Your task to perform on an android device: Go to notification settings Image 0: 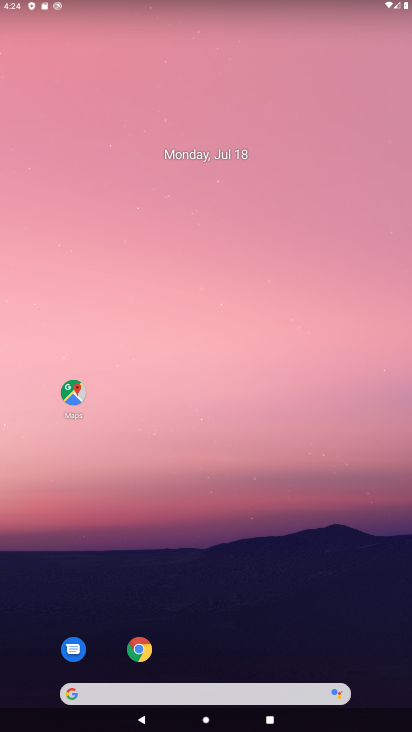
Step 0: drag from (176, 622) to (229, 273)
Your task to perform on an android device: Go to notification settings Image 1: 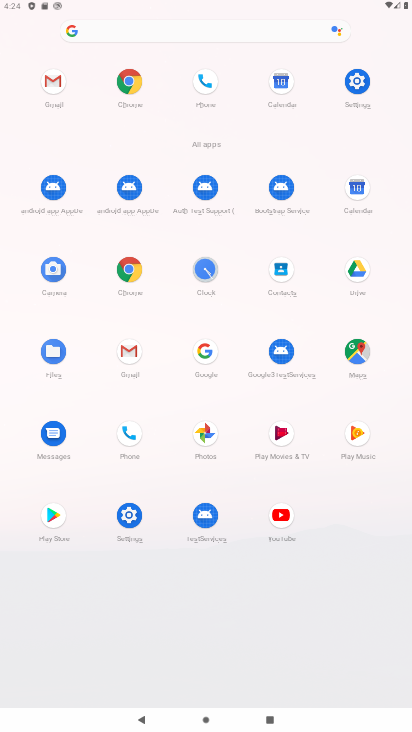
Step 1: click (139, 528)
Your task to perform on an android device: Go to notification settings Image 2: 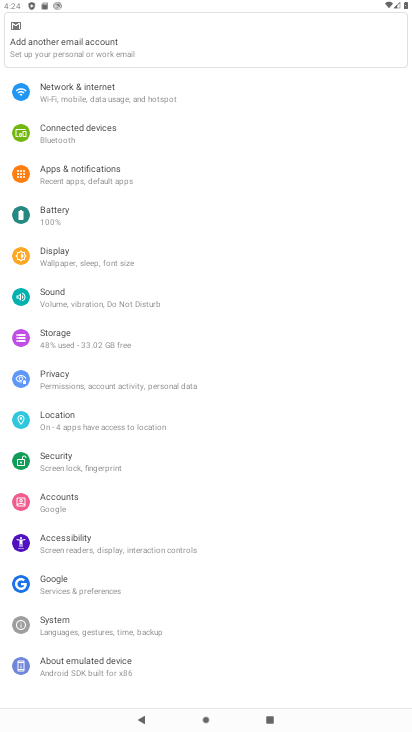
Step 2: click (111, 98)
Your task to perform on an android device: Go to notification settings Image 3: 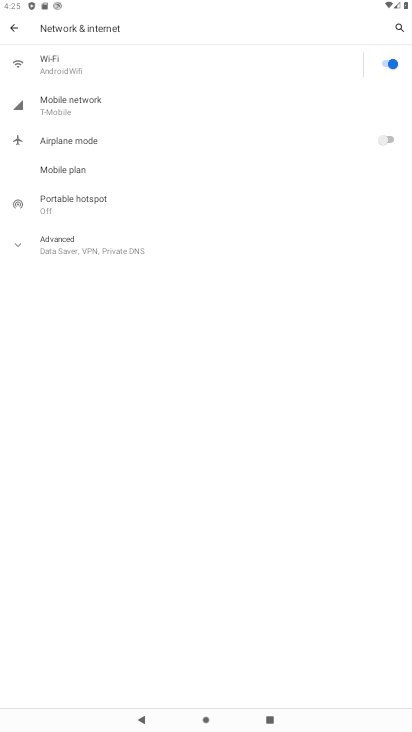
Step 3: click (8, 28)
Your task to perform on an android device: Go to notification settings Image 4: 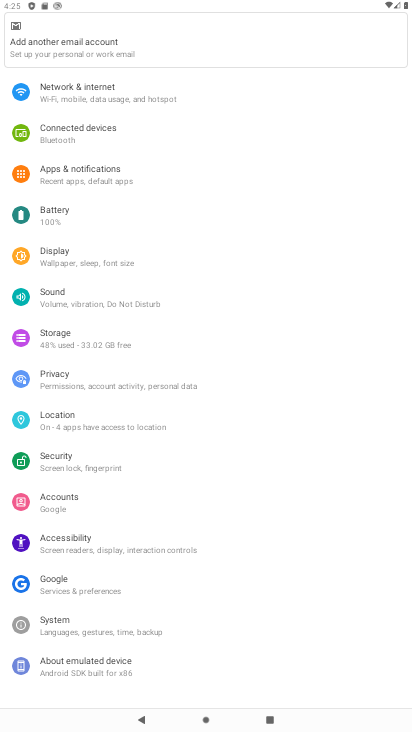
Step 4: click (119, 180)
Your task to perform on an android device: Go to notification settings Image 5: 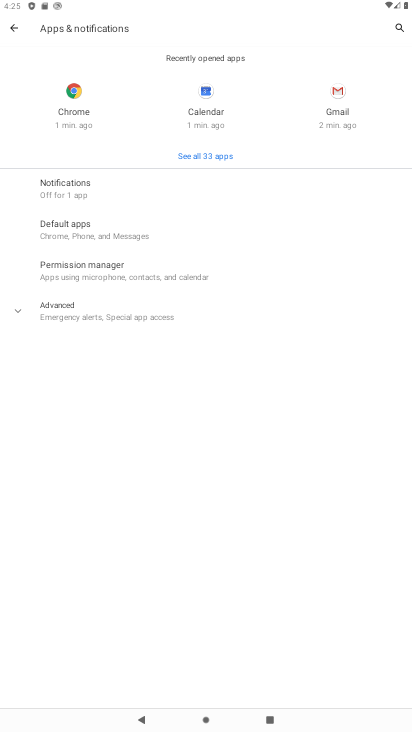
Step 5: click (81, 196)
Your task to perform on an android device: Go to notification settings Image 6: 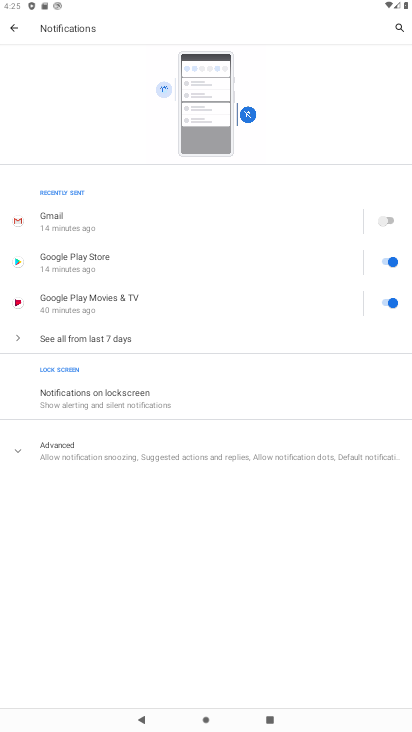
Step 6: click (100, 332)
Your task to perform on an android device: Go to notification settings Image 7: 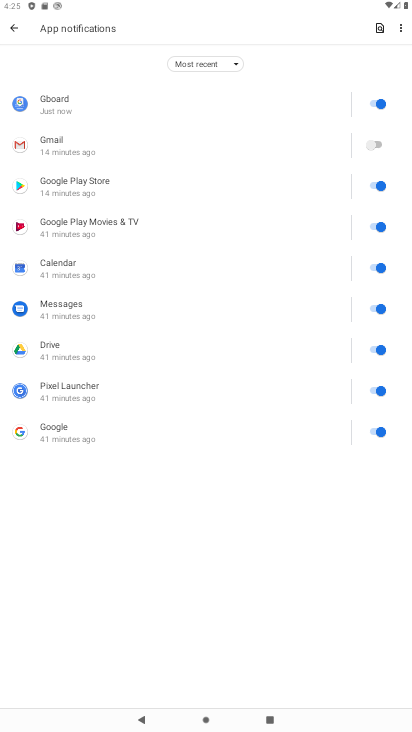
Step 7: task complete